Your task to perform on an android device: check data usage Image 0: 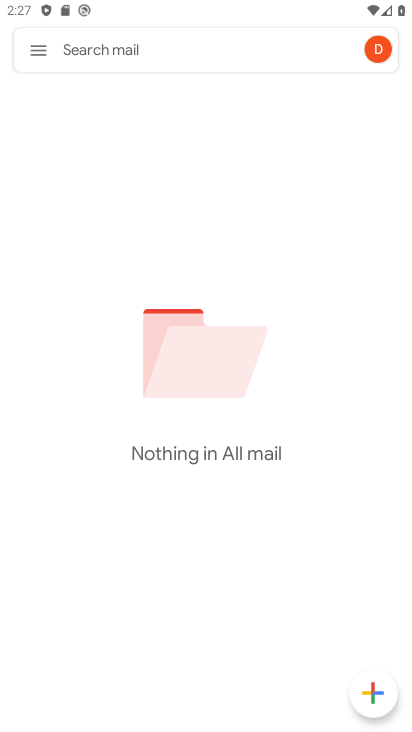
Step 0: press home button
Your task to perform on an android device: check data usage Image 1: 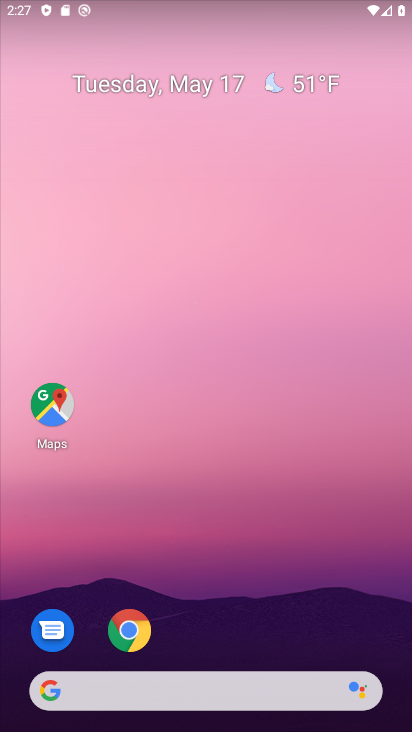
Step 1: drag from (200, 620) to (265, 103)
Your task to perform on an android device: check data usage Image 2: 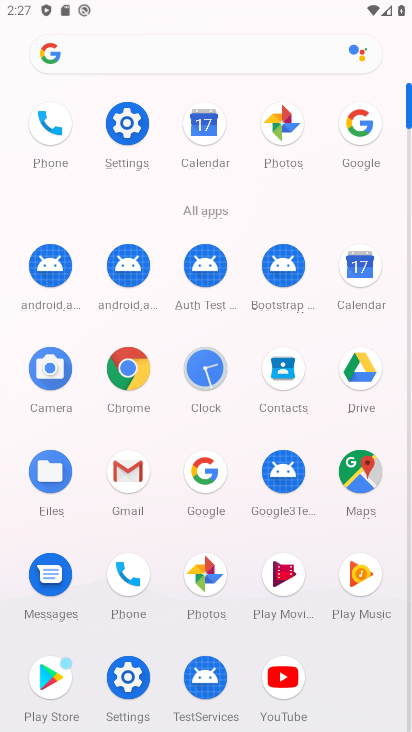
Step 2: click (133, 145)
Your task to perform on an android device: check data usage Image 3: 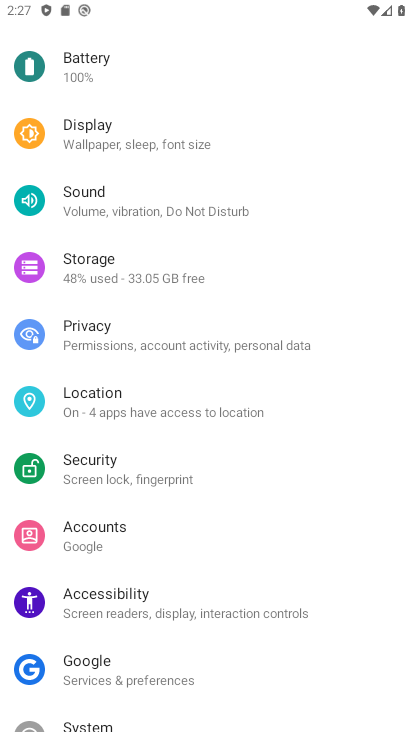
Step 3: drag from (145, 121) to (91, 378)
Your task to perform on an android device: check data usage Image 4: 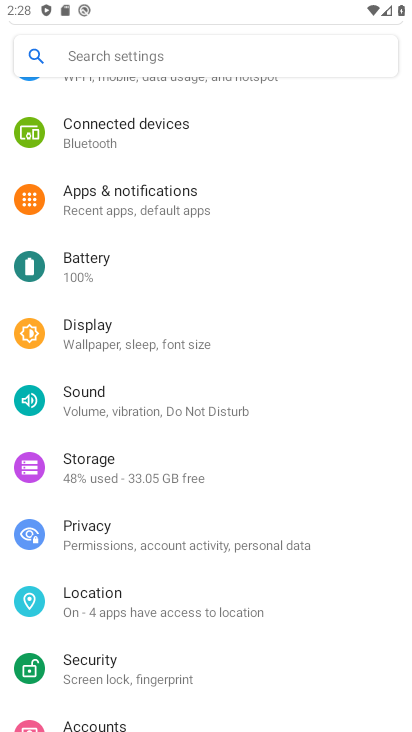
Step 4: click (192, 410)
Your task to perform on an android device: check data usage Image 5: 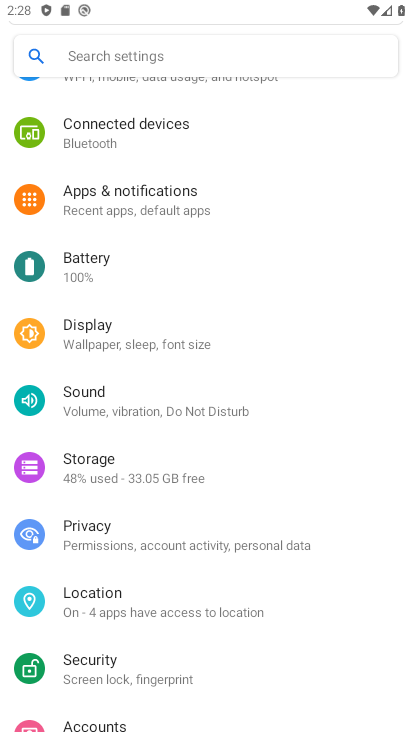
Step 5: drag from (234, 135) to (221, 430)
Your task to perform on an android device: check data usage Image 6: 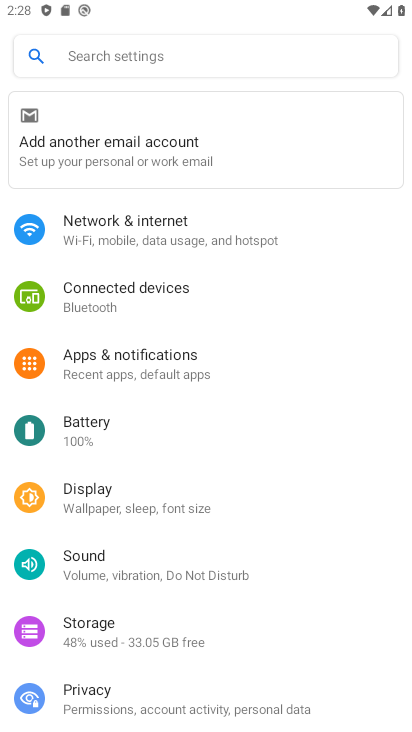
Step 6: click (146, 242)
Your task to perform on an android device: check data usage Image 7: 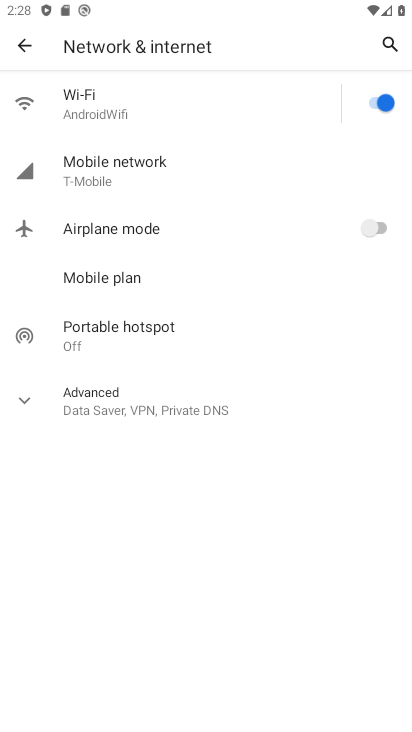
Step 7: click (137, 181)
Your task to perform on an android device: check data usage Image 8: 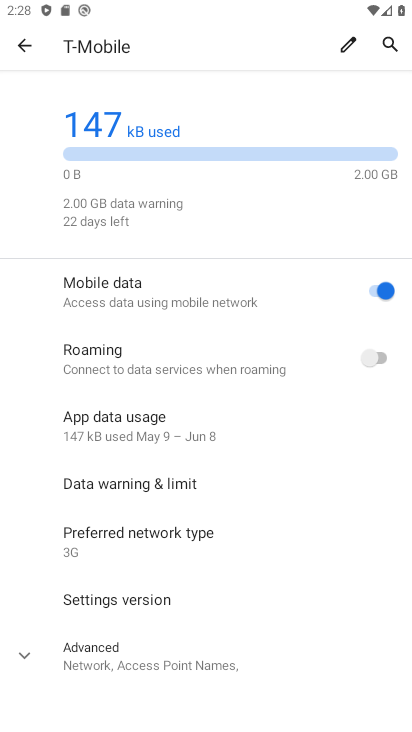
Step 8: task complete